Your task to perform on an android device: open the mobile data screen to see how much data has been used Image 0: 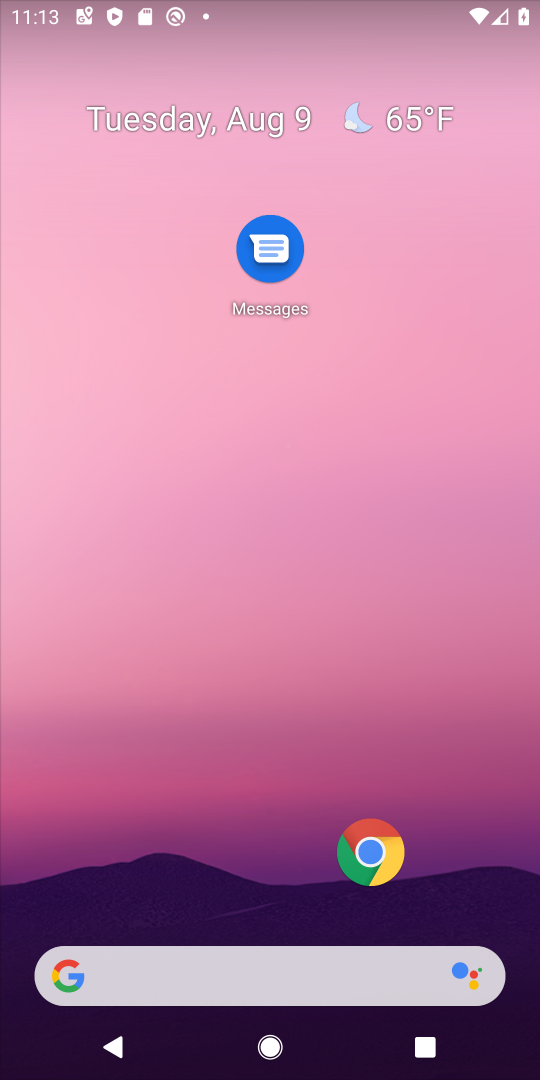
Step 0: drag from (237, 16) to (210, 892)
Your task to perform on an android device: open the mobile data screen to see how much data has been used Image 1: 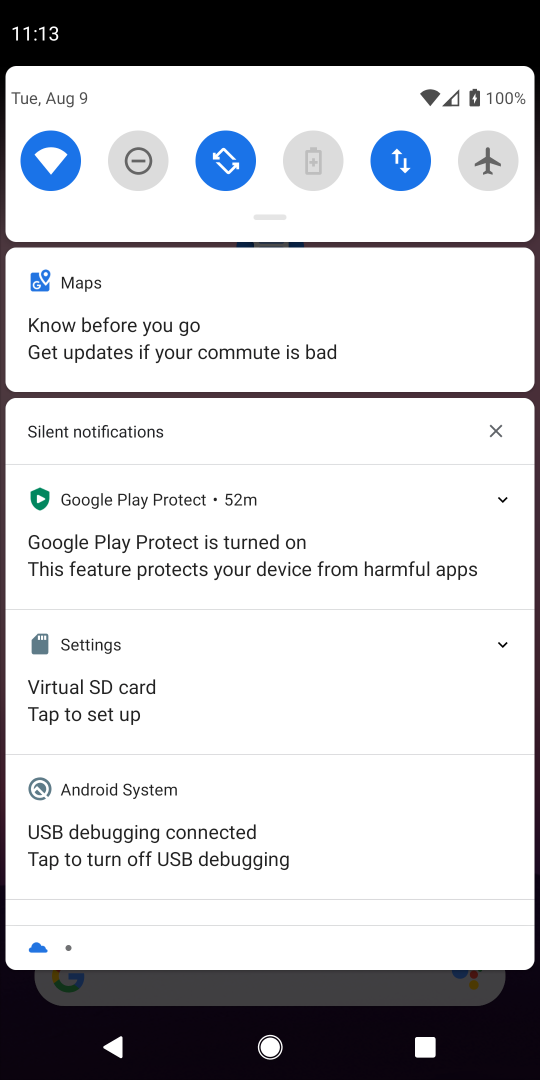
Step 1: click (407, 175)
Your task to perform on an android device: open the mobile data screen to see how much data has been used Image 2: 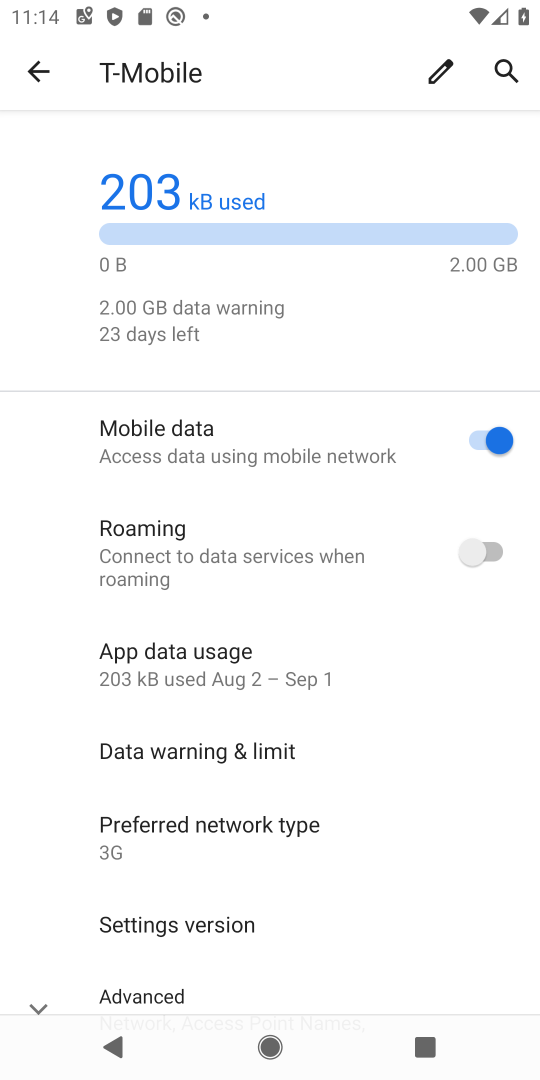
Step 2: task complete